Your task to perform on an android device: uninstall "Grab" Image 0: 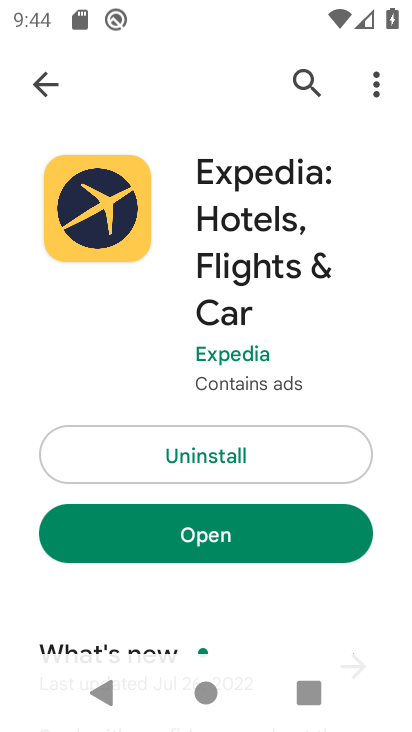
Step 0: click (304, 80)
Your task to perform on an android device: uninstall "Grab" Image 1: 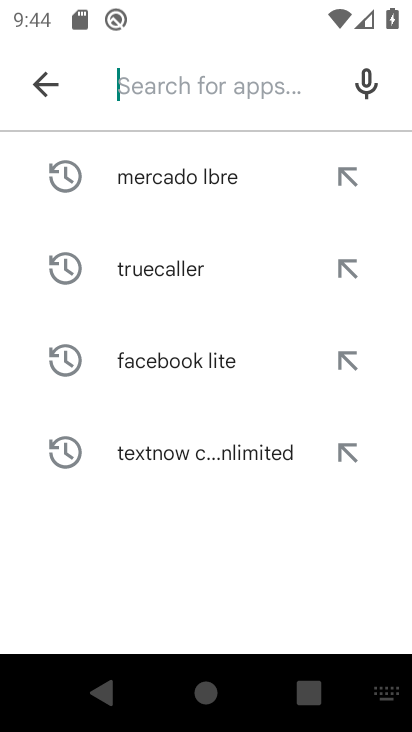
Step 1: type "Grab"
Your task to perform on an android device: uninstall "Grab" Image 2: 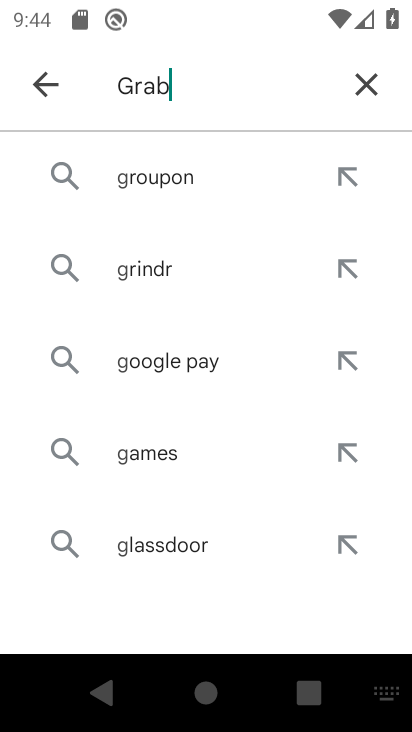
Step 2: type ""
Your task to perform on an android device: uninstall "Grab" Image 3: 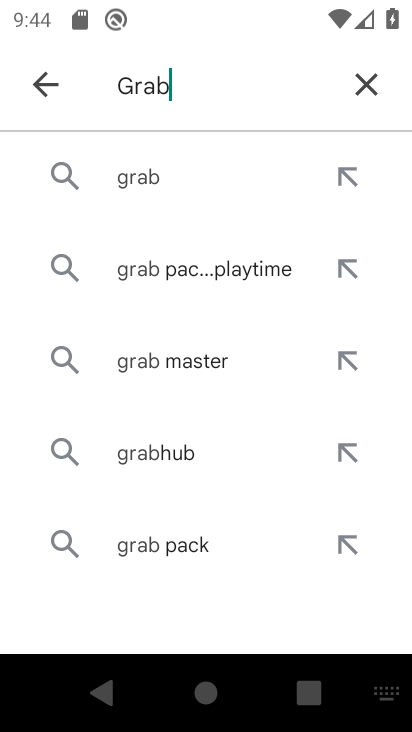
Step 3: click (128, 179)
Your task to perform on an android device: uninstall "Grab" Image 4: 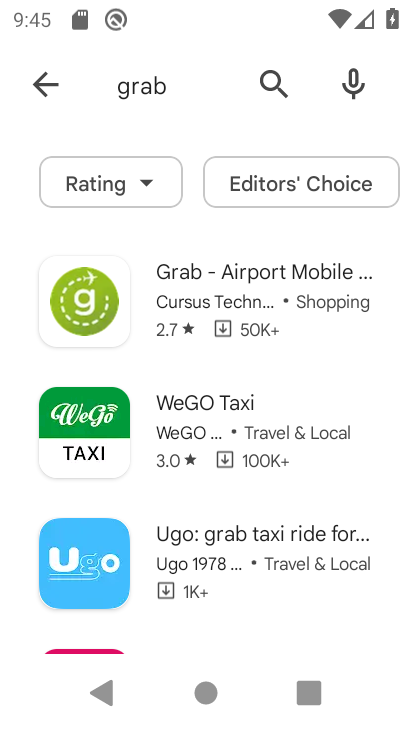
Step 4: click (228, 274)
Your task to perform on an android device: uninstall "Grab" Image 5: 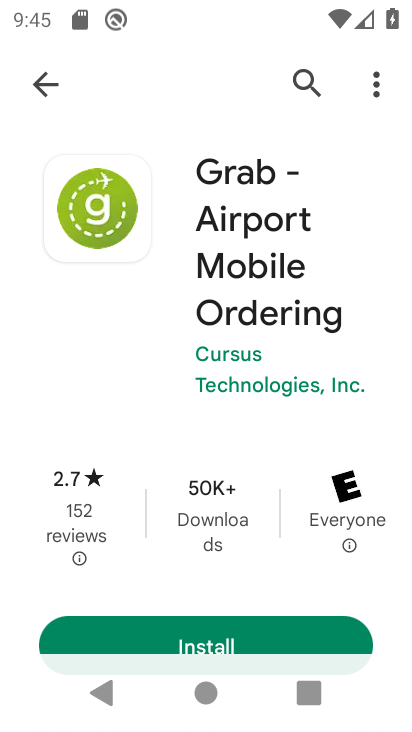
Step 5: task complete